Your task to perform on an android device: delete browsing data in the chrome app Image 0: 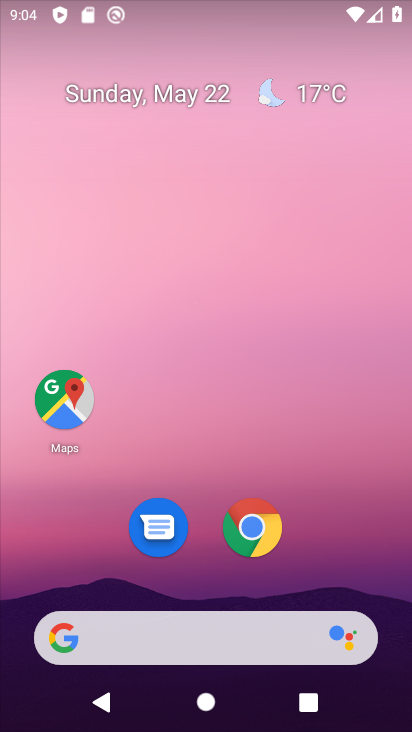
Step 0: click (247, 527)
Your task to perform on an android device: delete browsing data in the chrome app Image 1: 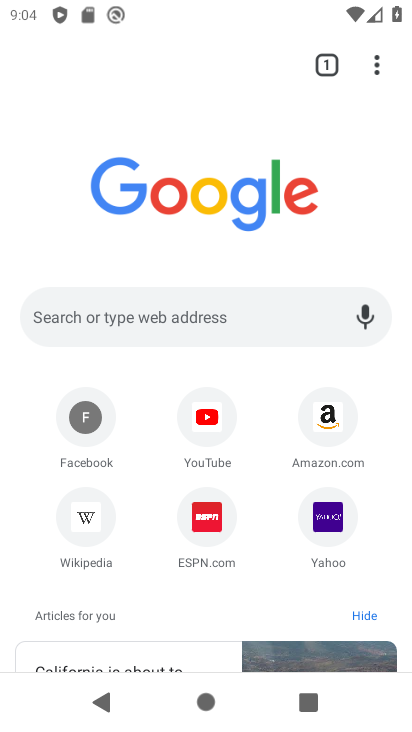
Step 1: click (376, 64)
Your task to perform on an android device: delete browsing data in the chrome app Image 2: 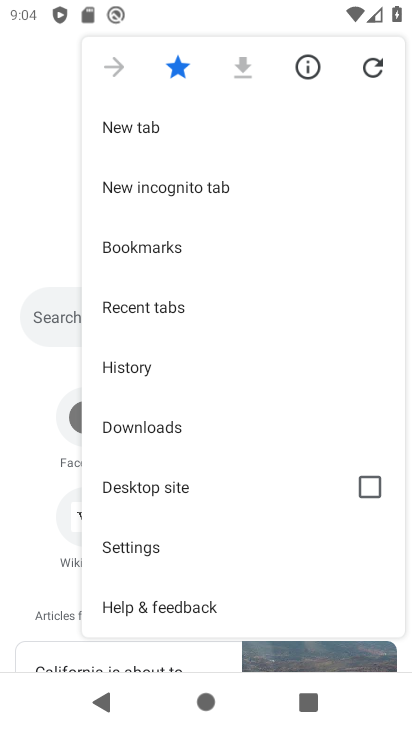
Step 2: click (140, 366)
Your task to perform on an android device: delete browsing data in the chrome app Image 3: 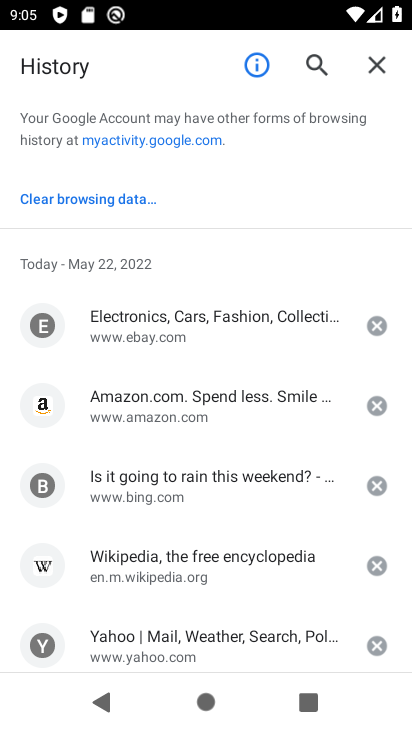
Step 3: click (109, 196)
Your task to perform on an android device: delete browsing data in the chrome app Image 4: 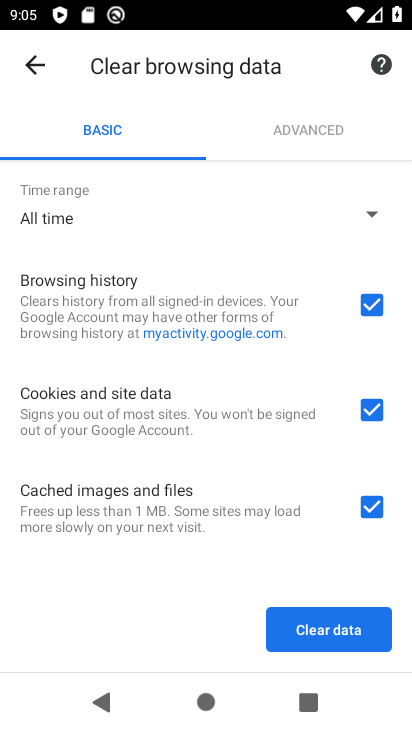
Step 4: click (336, 625)
Your task to perform on an android device: delete browsing data in the chrome app Image 5: 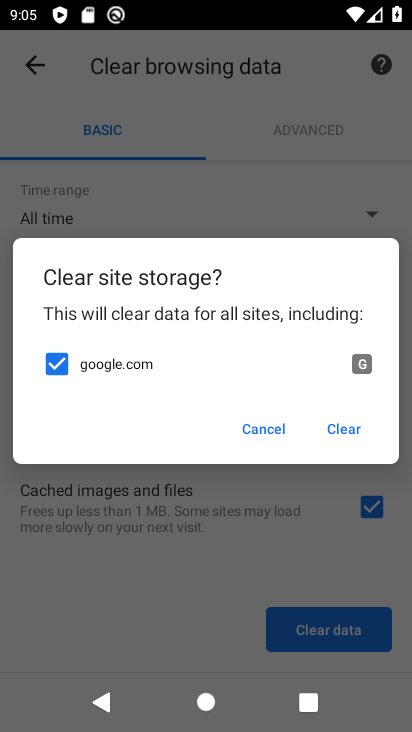
Step 5: click (336, 419)
Your task to perform on an android device: delete browsing data in the chrome app Image 6: 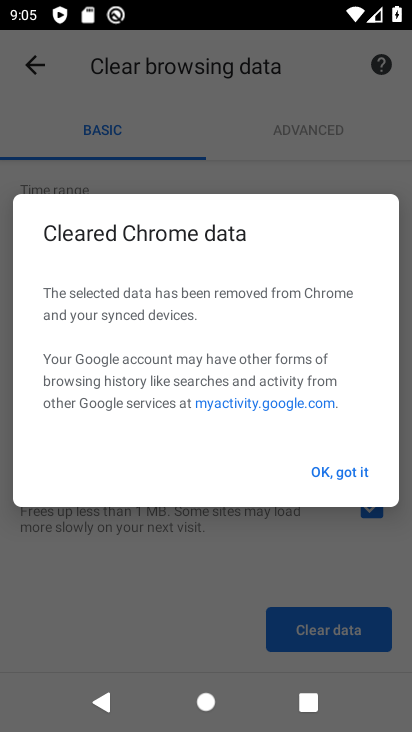
Step 6: click (338, 467)
Your task to perform on an android device: delete browsing data in the chrome app Image 7: 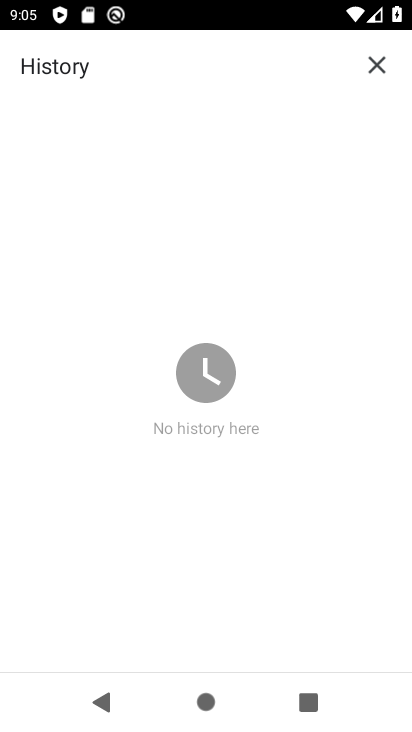
Step 7: task complete